Your task to perform on an android device: toggle priority inbox in the gmail app Image 0: 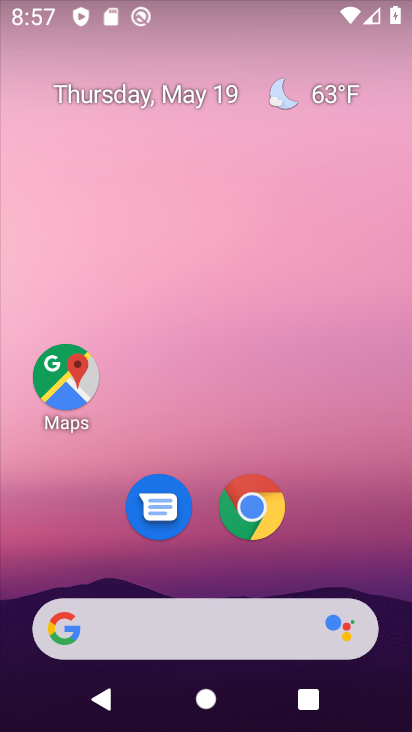
Step 0: drag from (354, 548) to (292, 144)
Your task to perform on an android device: toggle priority inbox in the gmail app Image 1: 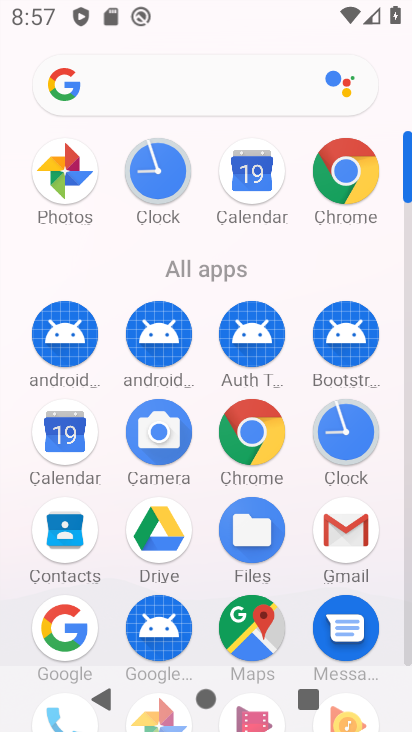
Step 1: click (360, 530)
Your task to perform on an android device: toggle priority inbox in the gmail app Image 2: 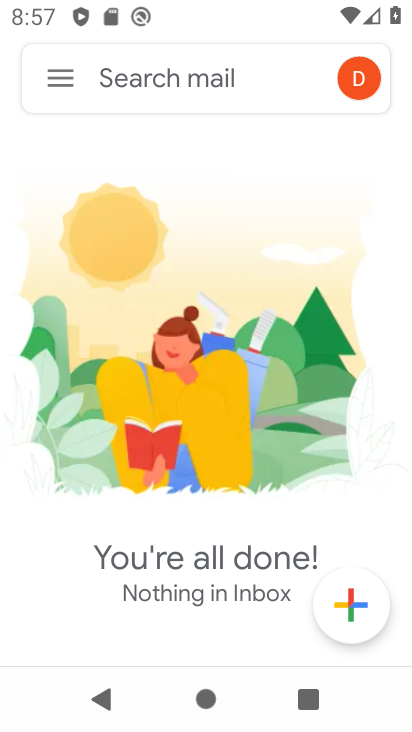
Step 2: click (69, 94)
Your task to perform on an android device: toggle priority inbox in the gmail app Image 3: 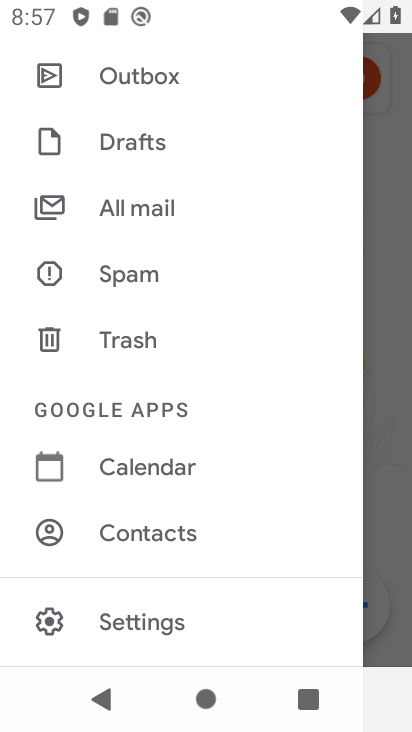
Step 3: click (194, 622)
Your task to perform on an android device: toggle priority inbox in the gmail app Image 4: 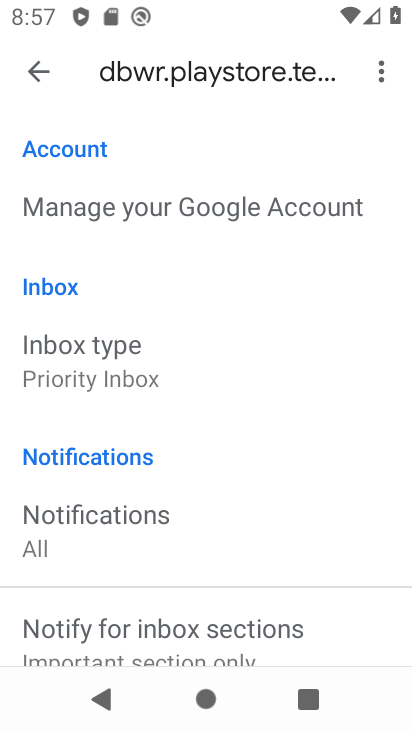
Step 4: click (255, 377)
Your task to perform on an android device: toggle priority inbox in the gmail app Image 5: 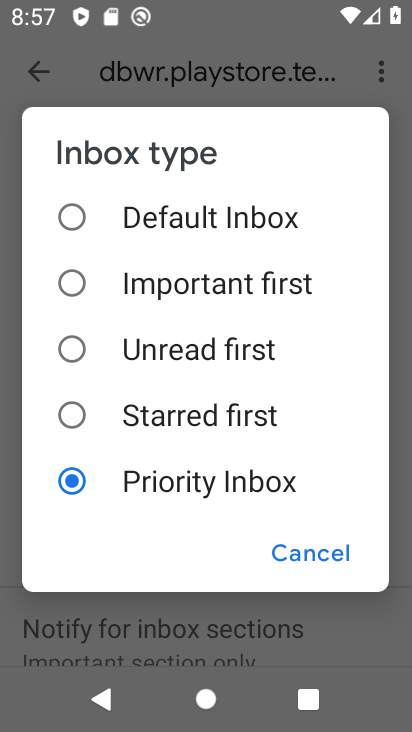
Step 5: click (239, 217)
Your task to perform on an android device: toggle priority inbox in the gmail app Image 6: 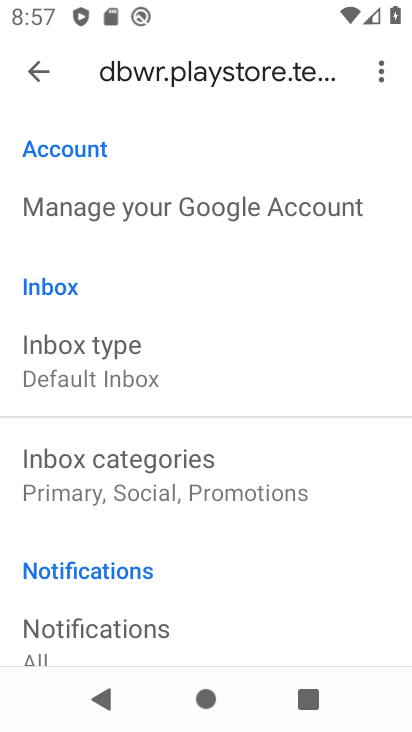
Step 6: task complete